Your task to perform on an android device: Set an alarm for 7am Image 0: 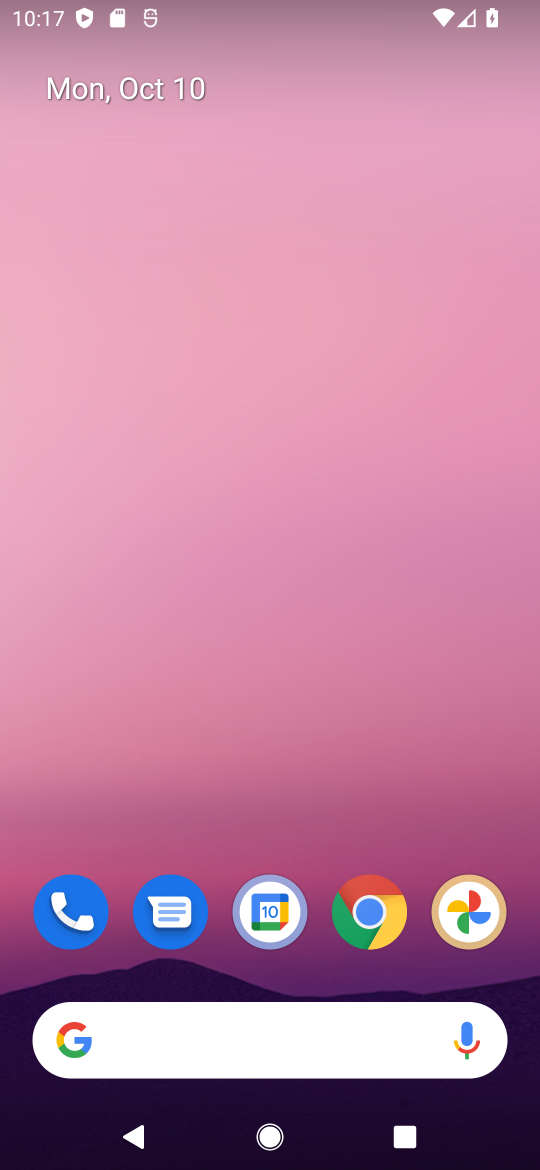
Step 0: drag from (111, 1031) to (208, 38)
Your task to perform on an android device: Set an alarm for 7am Image 1: 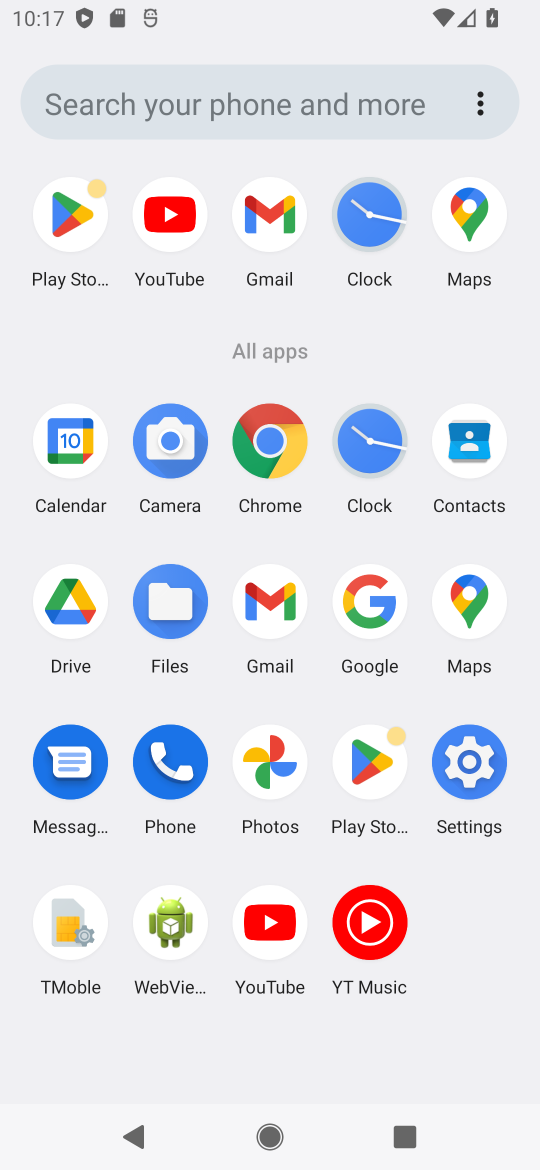
Step 1: click (366, 434)
Your task to perform on an android device: Set an alarm for 7am Image 2: 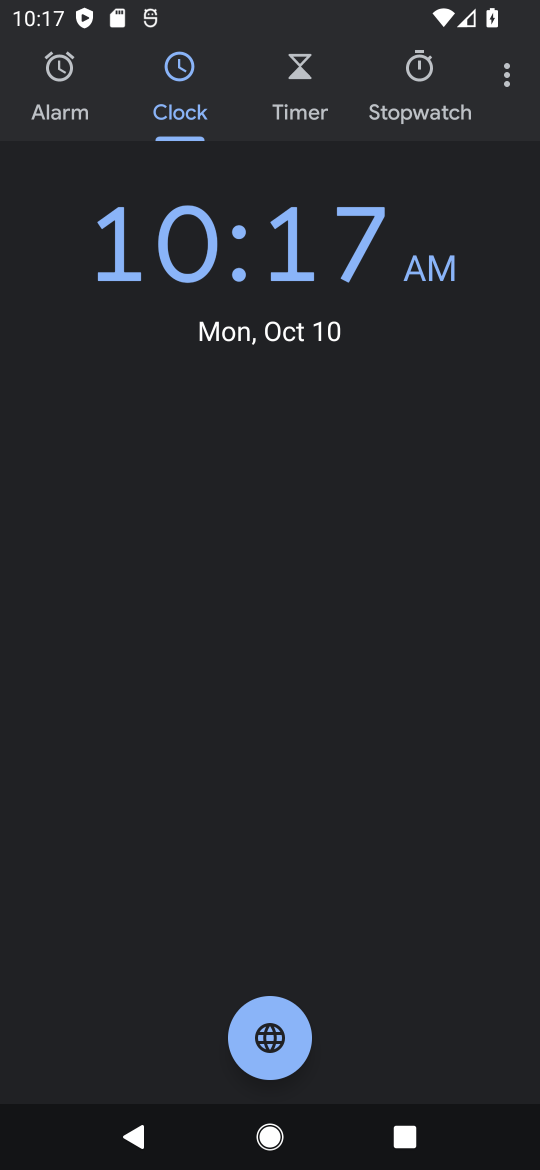
Step 2: click (173, 244)
Your task to perform on an android device: Set an alarm for 7am Image 3: 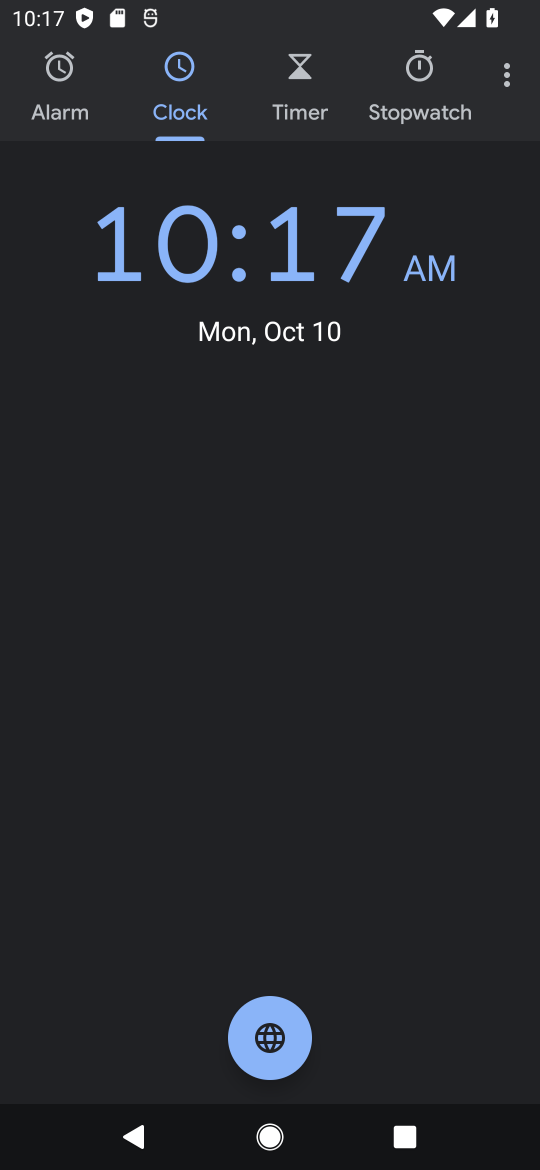
Step 3: click (56, 110)
Your task to perform on an android device: Set an alarm for 7am Image 4: 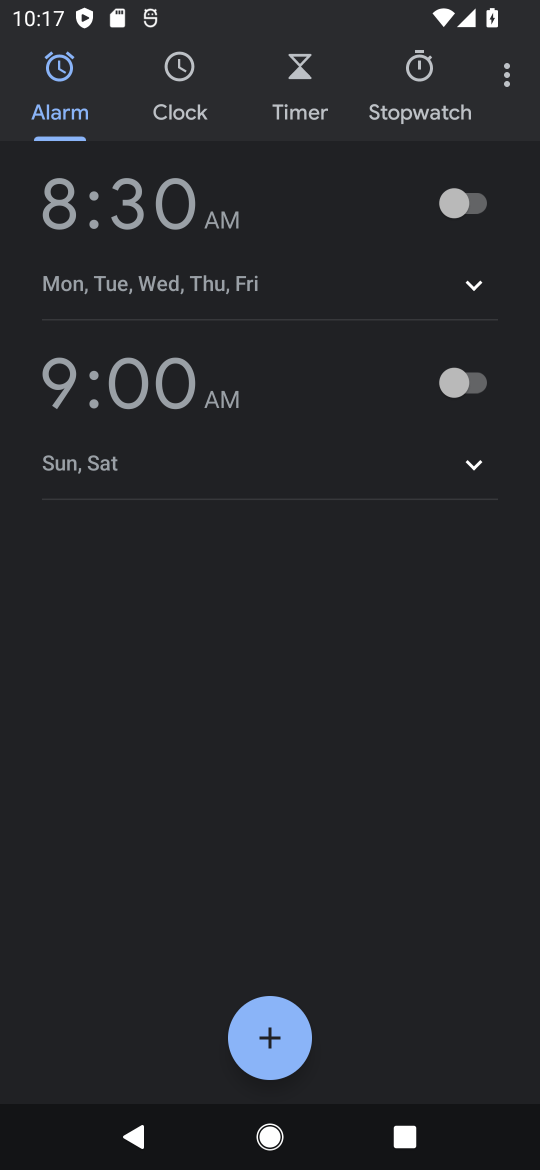
Step 4: click (57, 220)
Your task to perform on an android device: Set an alarm for 7am Image 5: 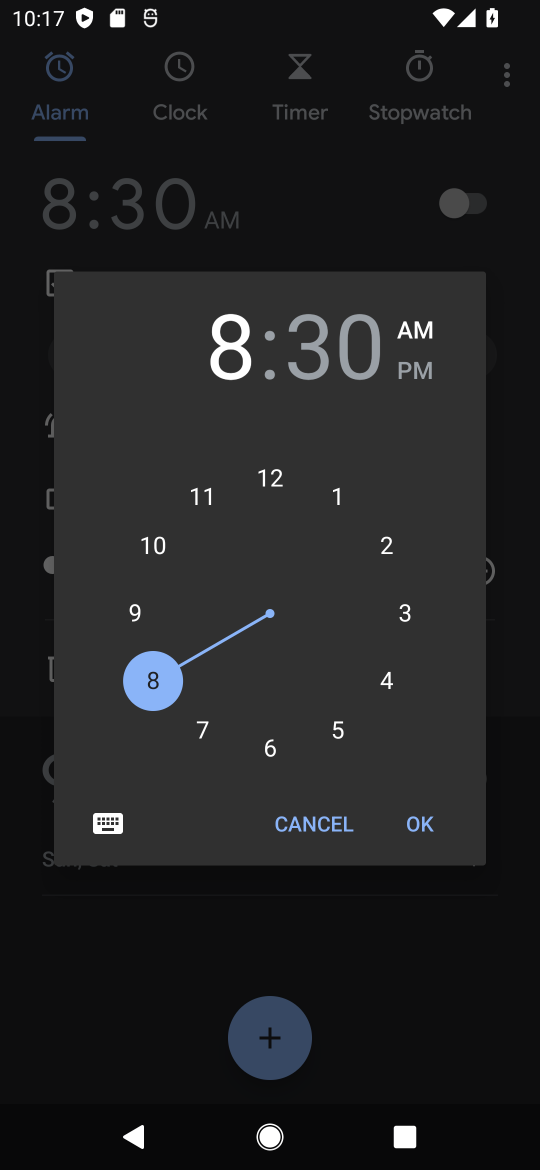
Step 5: click (208, 738)
Your task to perform on an android device: Set an alarm for 7am Image 6: 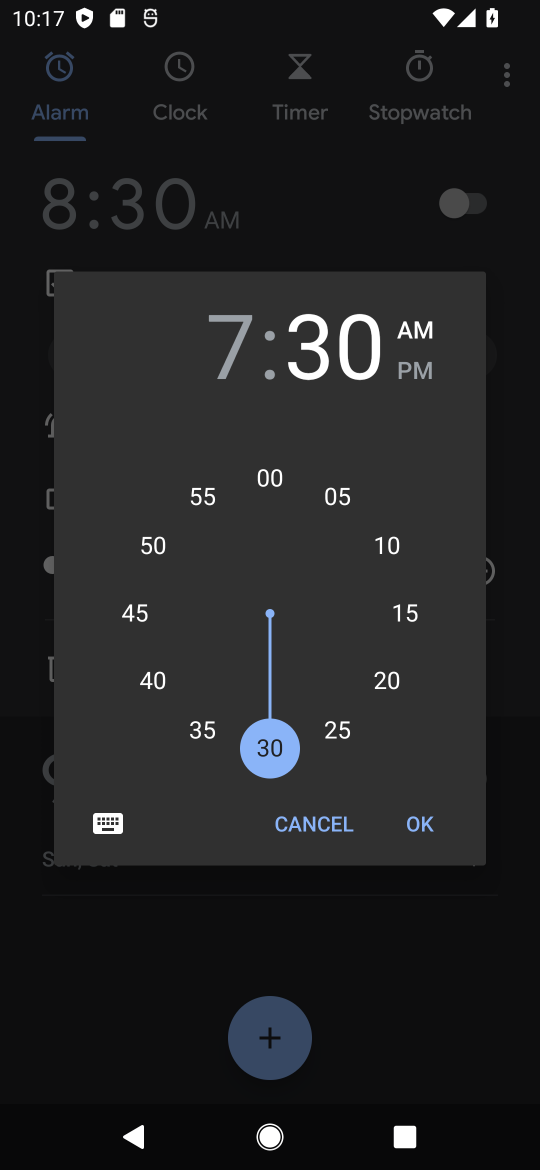
Step 6: click (272, 479)
Your task to perform on an android device: Set an alarm for 7am Image 7: 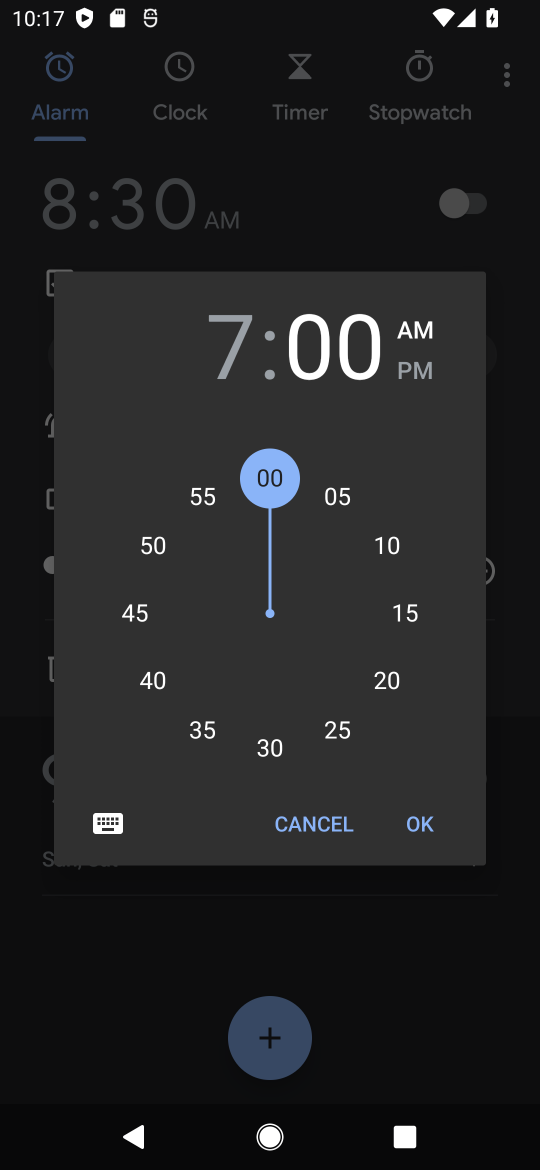
Step 7: click (425, 833)
Your task to perform on an android device: Set an alarm for 7am Image 8: 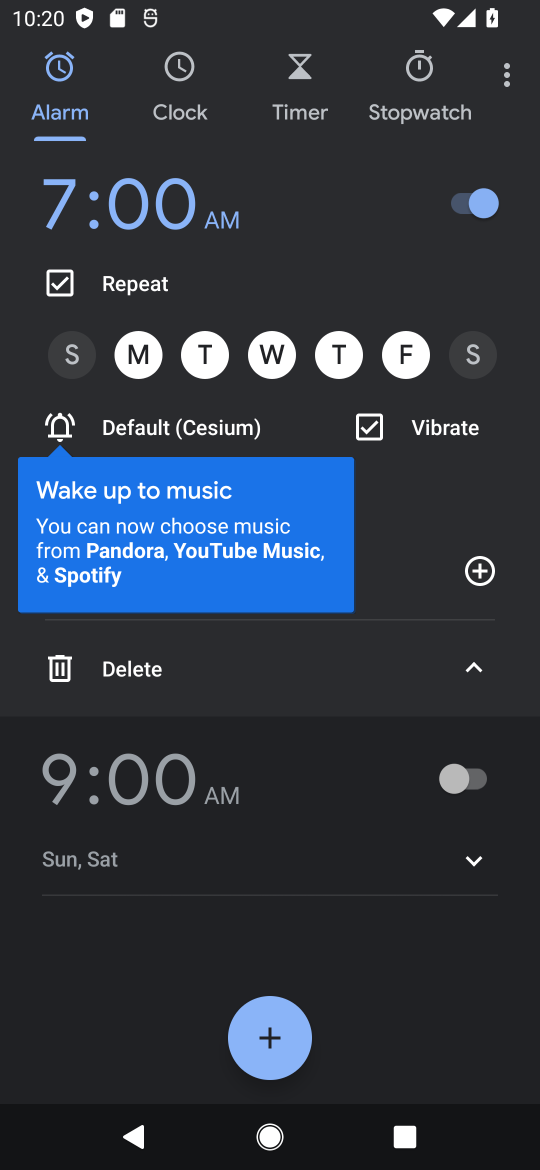
Step 8: task complete